Your task to perform on an android device: Open Google Chrome Image 0: 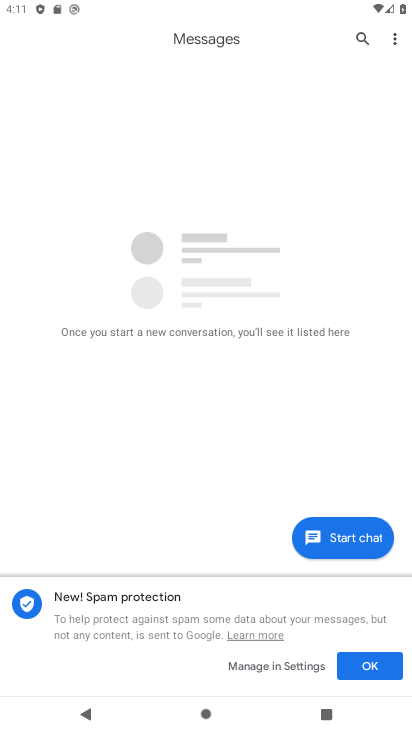
Step 0: press home button
Your task to perform on an android device: Open Google Chrome Image 1: 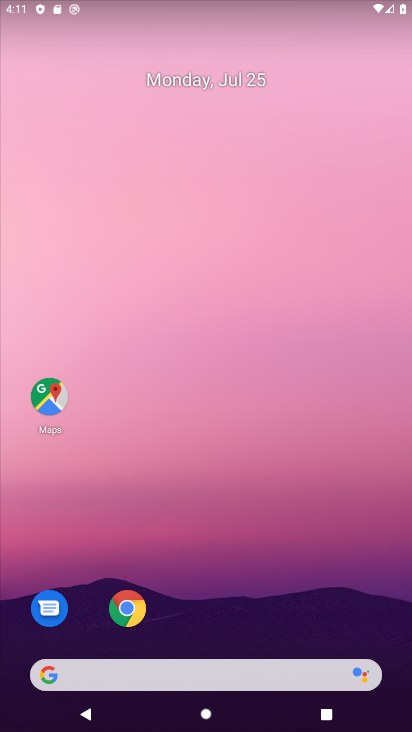
Step 1: click (139, 620)
Your task to perform on an android device: Open Google Chrome Image 2: 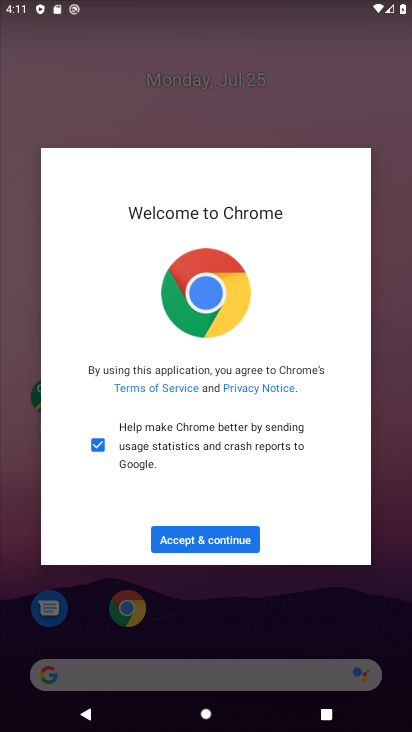
Step 2: click (238, 541)
Your task to perform on an android device: Open Google Chrome Image 3: 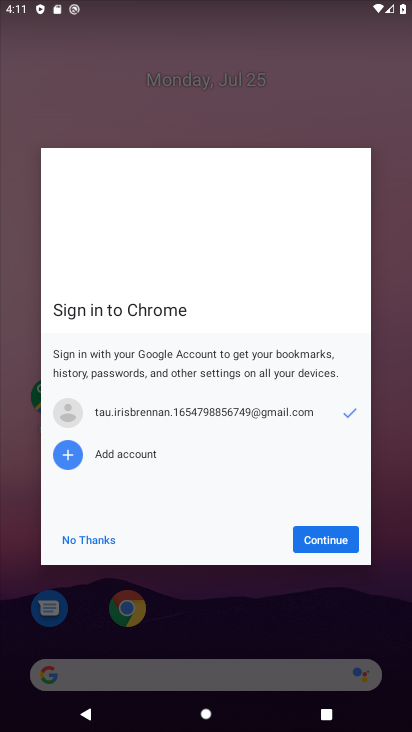
Step 3: click (327, 546)
Your task to perform on an android device: Open Google Chrome Image 4: 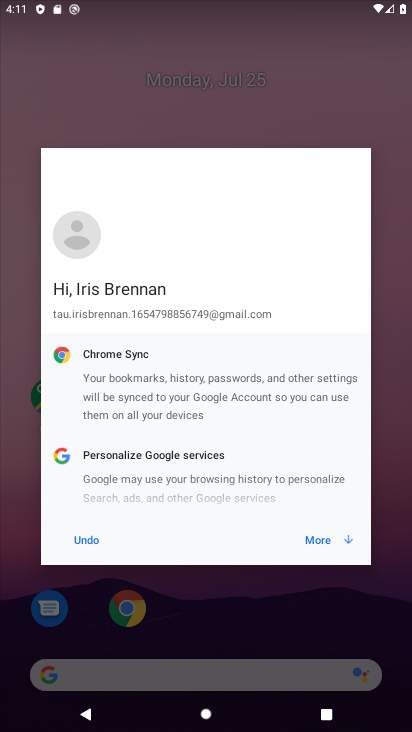
Step 4: click (336, 538)
Your task to perform on an android device: Open Google Chrome Image 5: 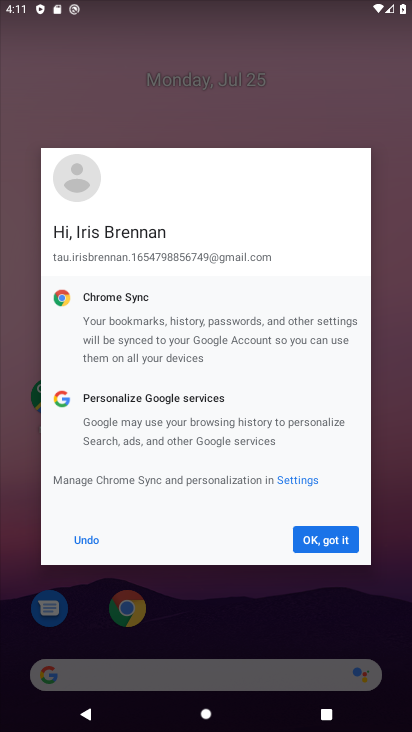
Step 5: click (338, 536)
Your task to perform on an android device: Open Google Chrome Image 6: 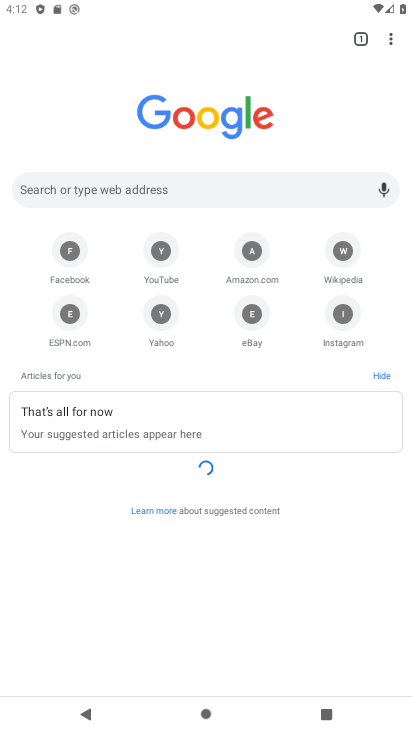
Step 6: task complete